Your task to perform on an android device: turn off priority inbox in the gmail app Image 0: 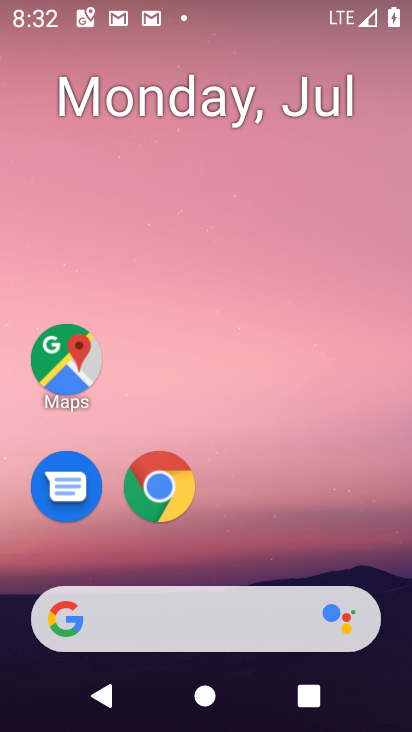
Step 0: drag from (372, 552) to (386, 127)
Your task to perform on an android device: turn off priority inbox in the gmail app Image 1: 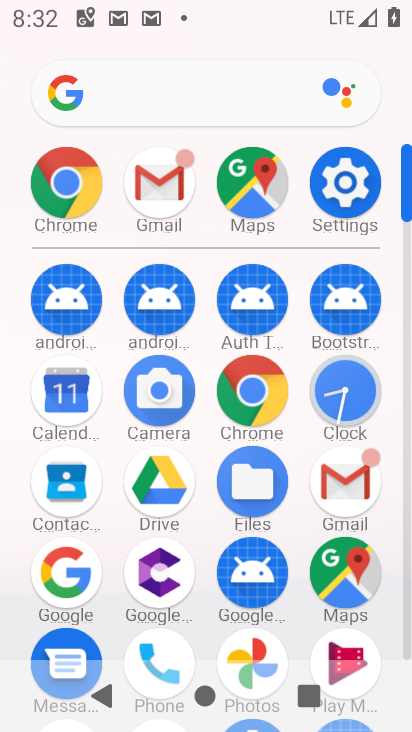
Step 1: click (366, 481)
Your task to perform on an android device: turn off priority inbox in the gmail app Image 2: 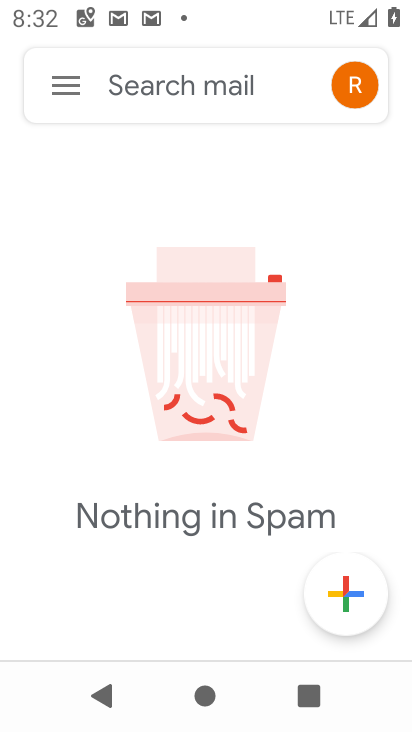
Step 2: click (66, 91)
Your task to perform on an android device: turn off priority inbox in the gmail app Image 3: 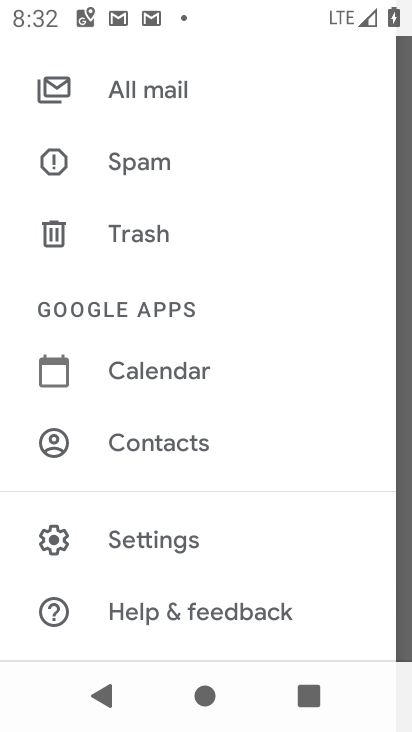
Step 3: click (185, 546)
Your task to perform on an android device: turn off priority inbox in the gmail app Image 4: 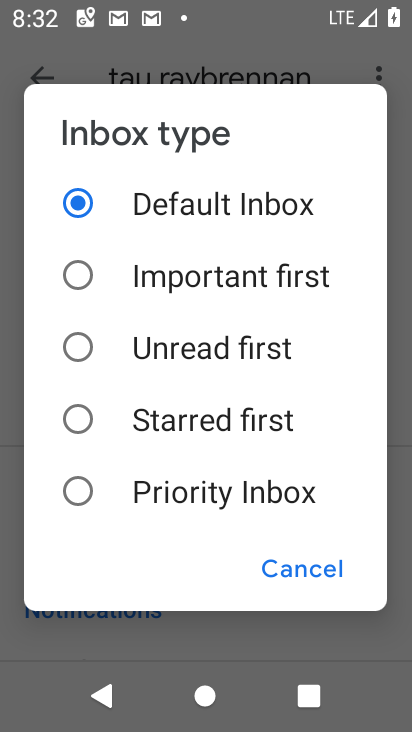
Step 4: task complete